Your task to perform on an android device: Go to accessibility settings Image 0: 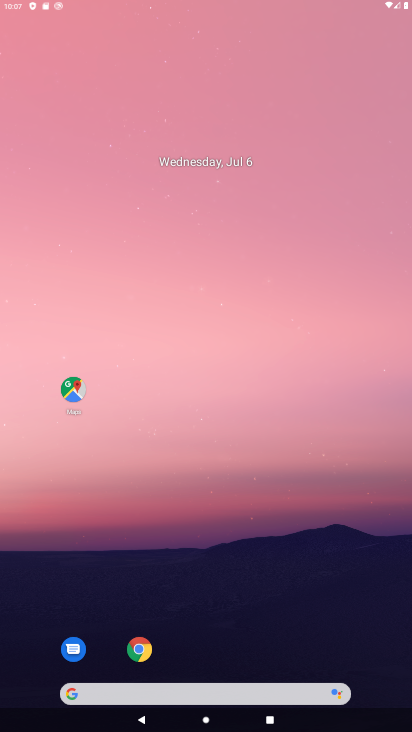
Step 0: click (223, 163)
Your task to perform on an android device: Go to accessibility settings Image 1: 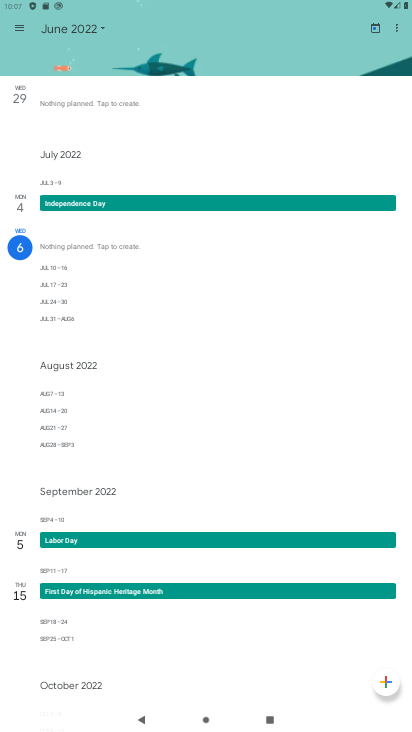
Step 1: press home button
Your task to perform on an android device: Go to accessibility settings Image 2: 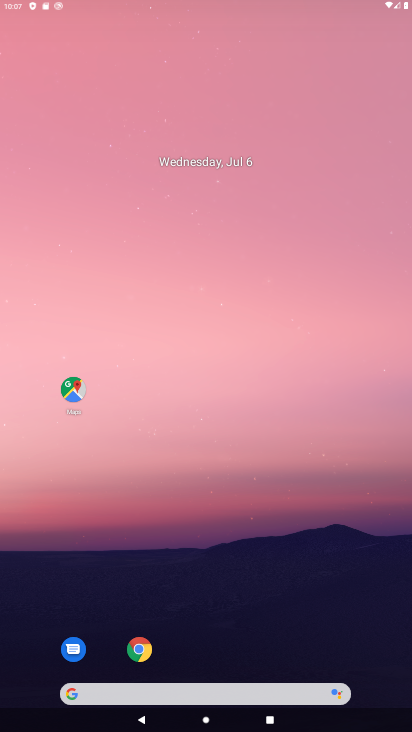
Step 2: drag from (388, 649) to (172, 28)
Your task to perform on an android device: Go to accessibility settings Image 3: 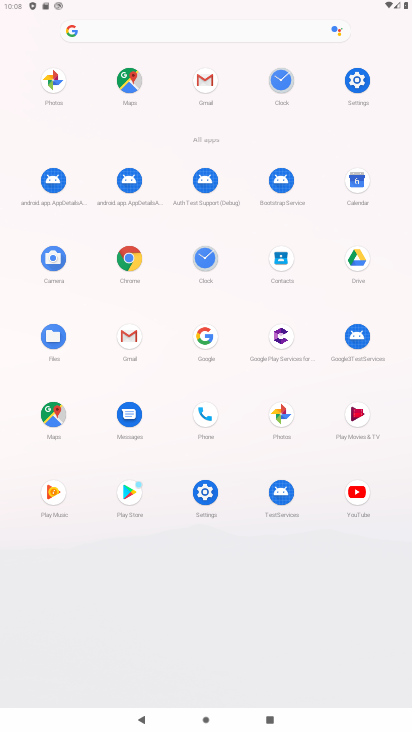
Step 3: click (212, 501)
Your task to perform on an android device: Go to accessibility settings Image 4: 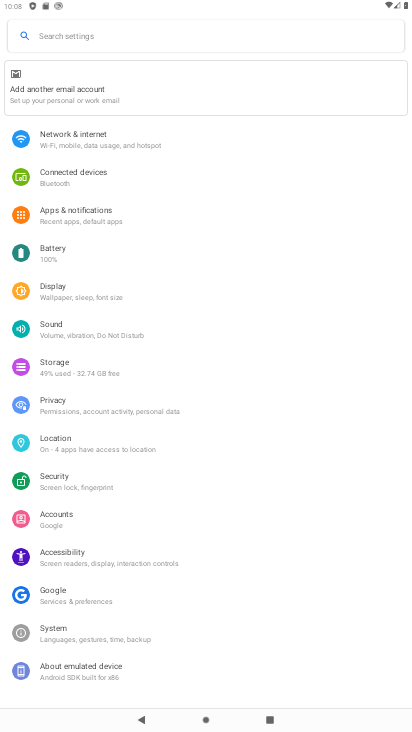
Step 4: click (112, 566)
Your task to perform on an android device: Go to accessibility settings Image 5: 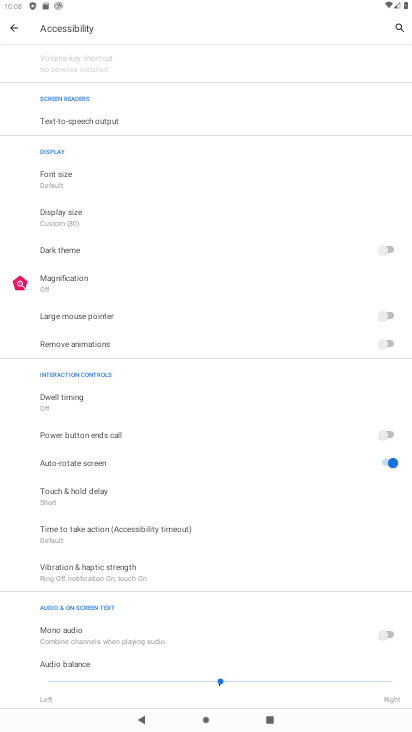
Step 5: task complete